Your task to perform on an android device: turn on airplane mode Image 0: 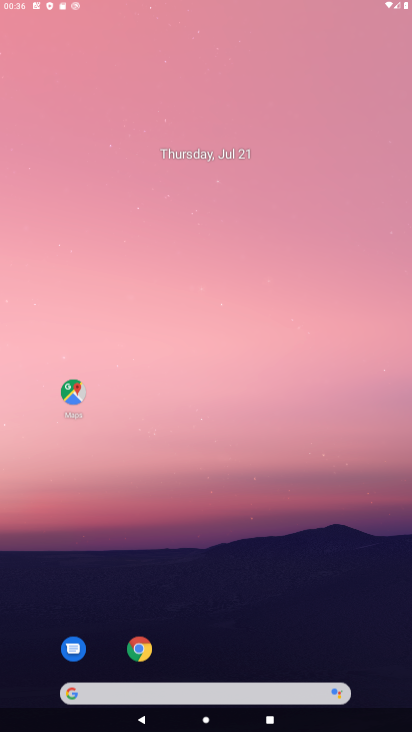
Step 0: click (223, 216)
Your task to perform on an android device: turn on airplane mode Image 1: 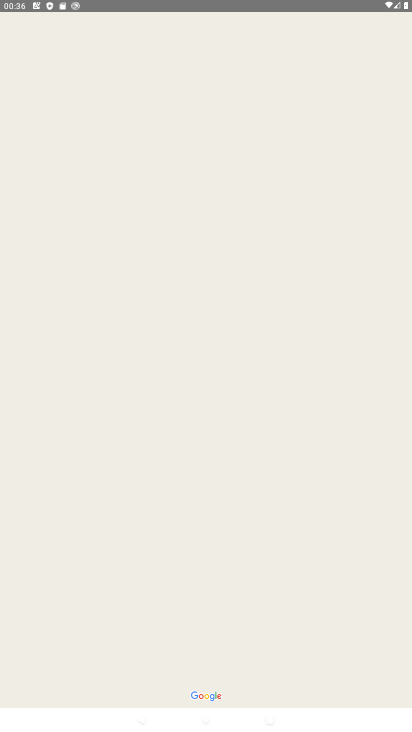
Step 1: press home button
Your task to perform on an android device: turn on airplane mode Image 2: 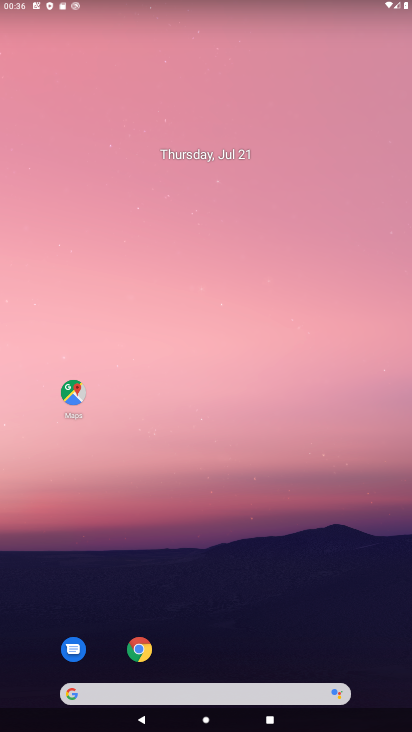
Step 2: drag from (222, 727) to (228, 135)
Your task to perform on an android device: turn on airplane mode Image 3: 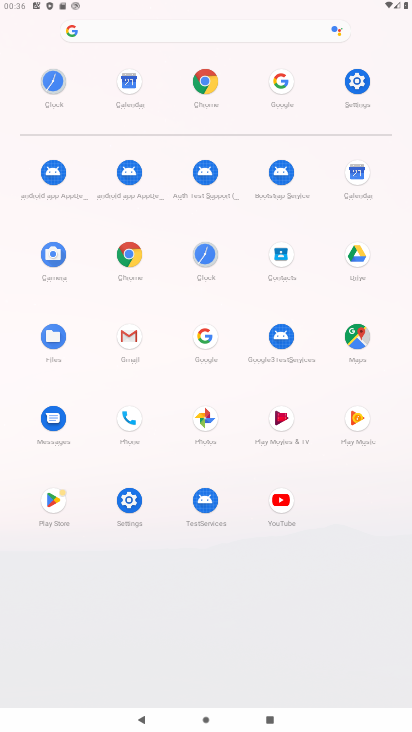
Step 3: click (355, 77)
Your task to perform on an android device: turn on airplane mode Image 4: 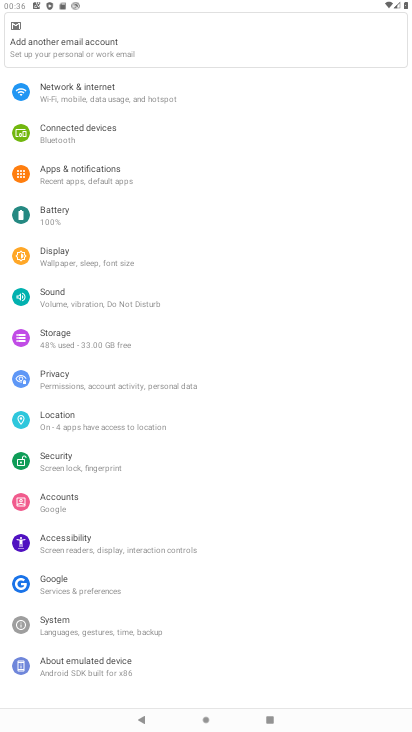
Step 4: click (78, 94)
Your task to perform on an android device: turn on airplane mode Image 5: 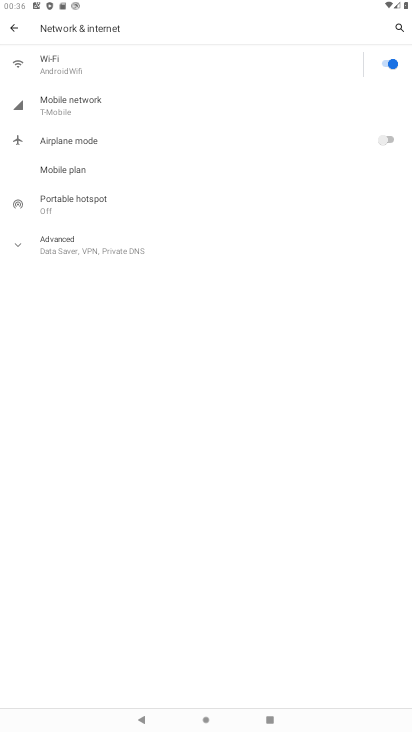
Step 5: click (390, 136)
Your task to perform on an android device: turn on airplane mode Image 6: 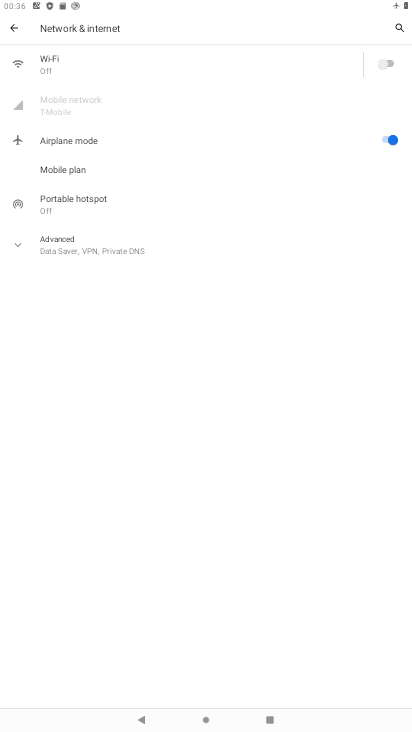
Step 6: task complete